Your task to perform on an android device: Look up the best rated 3d printer on Ali Express Image 0: 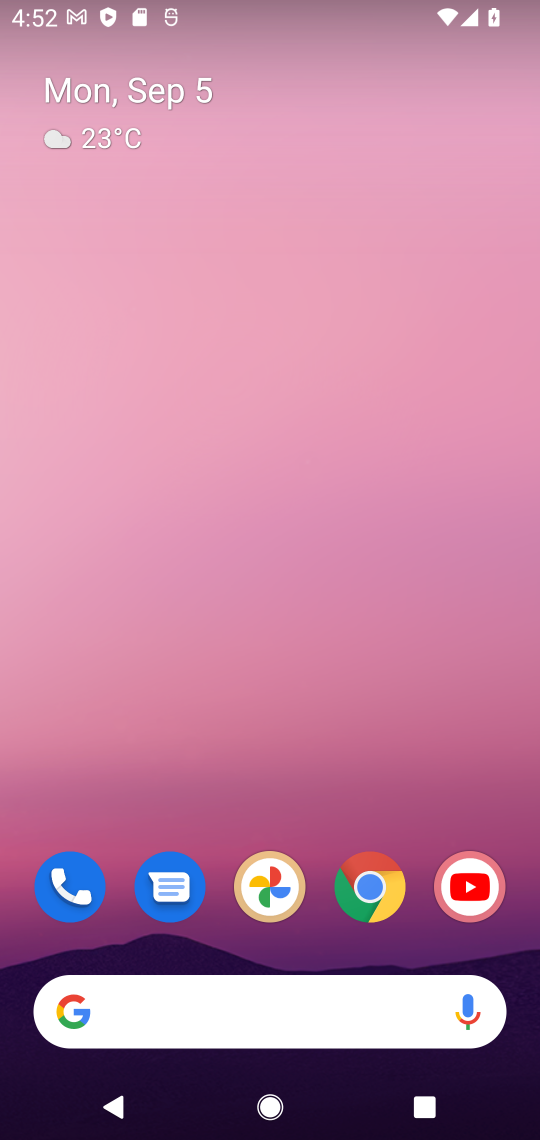
Step 0: drag from (199, 473) to (208, 299)
Your task to perform on an android device: Look up the best rated 3d printer on Ali Express Image 1: 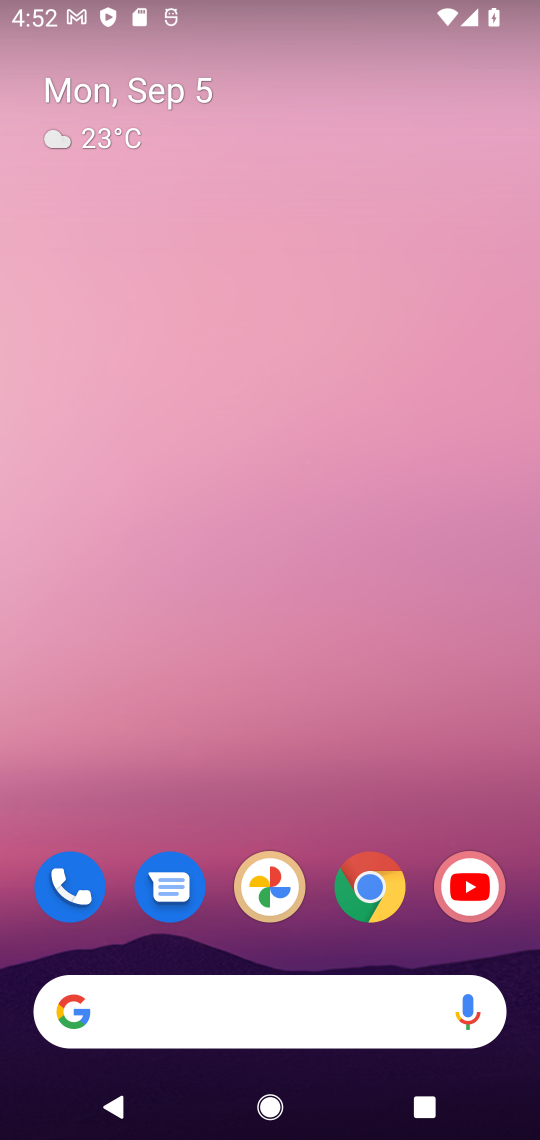
Step 1: drag from (300, 601) to (300, 154)
Your task to perform on an android device: Look up the best rated 3d printer on Ali Express Image 2: 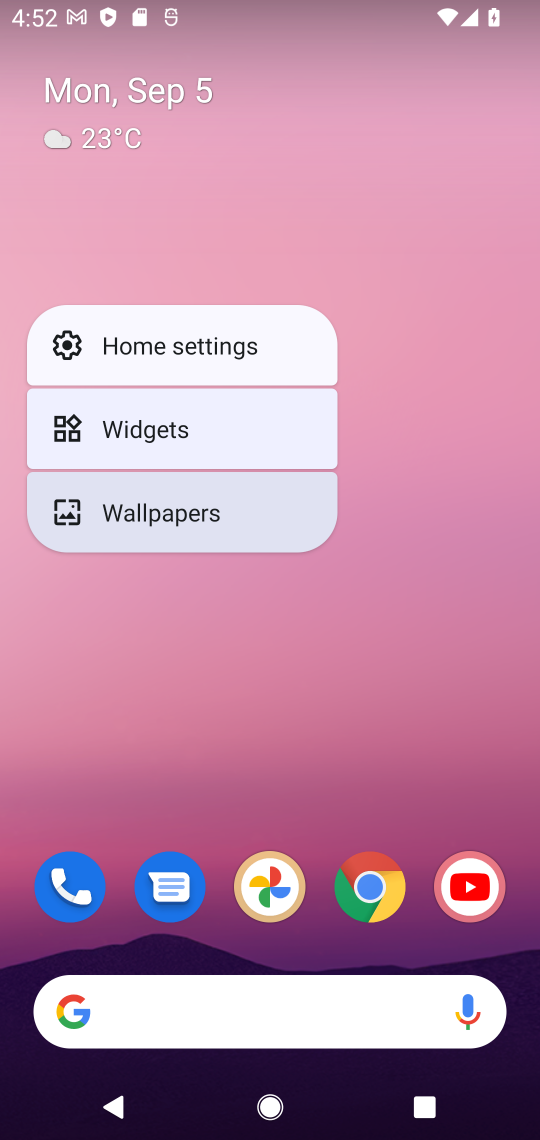
Step 2: drag from (346, 241) to (348, 133)
Your task to perform on an android device: Look up the best rated 3d printer on Ali Express Image 3: 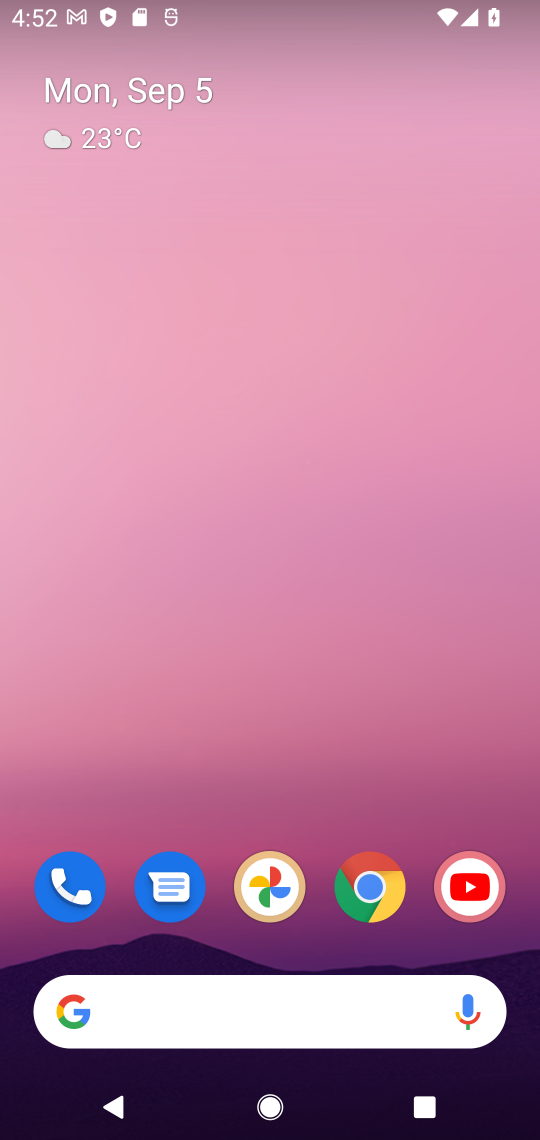
Step 3: drag from (249, 1010) to (297, 171)
Your task to perform on an android device: Look up the best rated 3d printer on Ali Express Image 4: 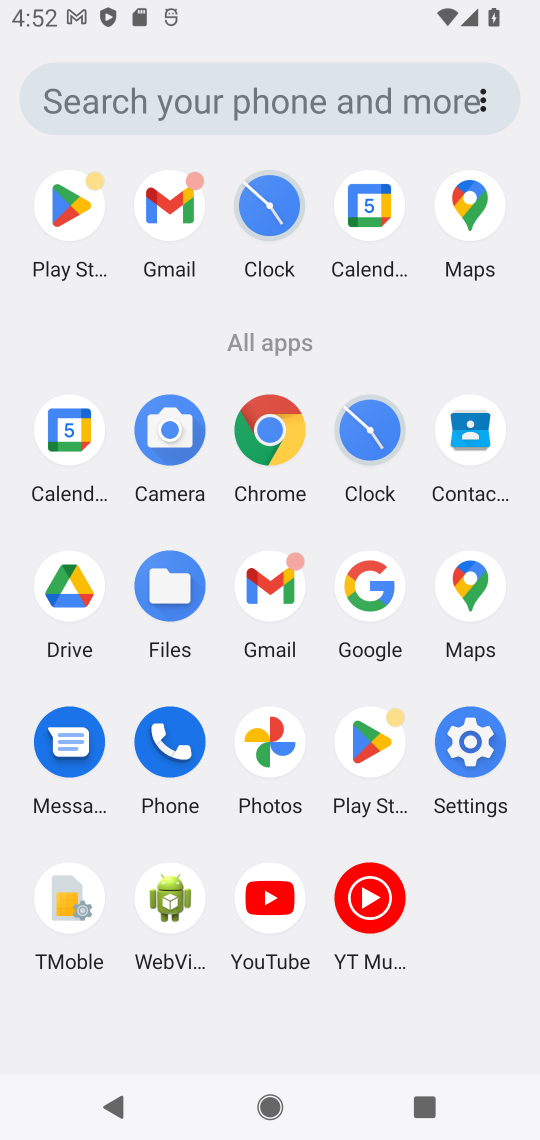
Step 4: click (374, 591)
Your task to perform on an android device: Look up the best rated 3d printer on Ali Express Image 5: 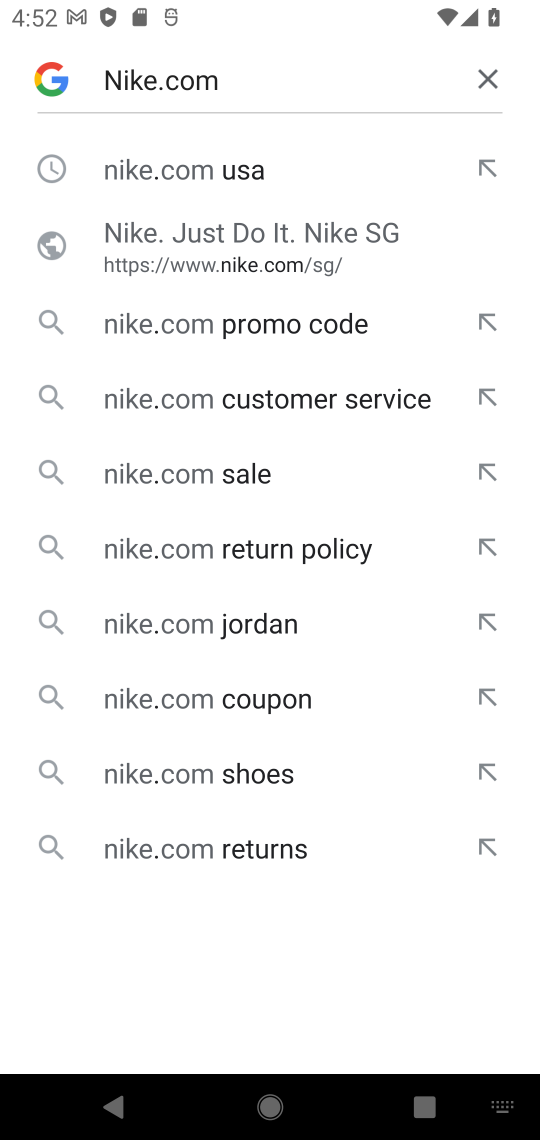
Step 5: click (495, 83)
Your task to perform on an android device: Look up the best rated 3d printer on Ali Express Image 6: 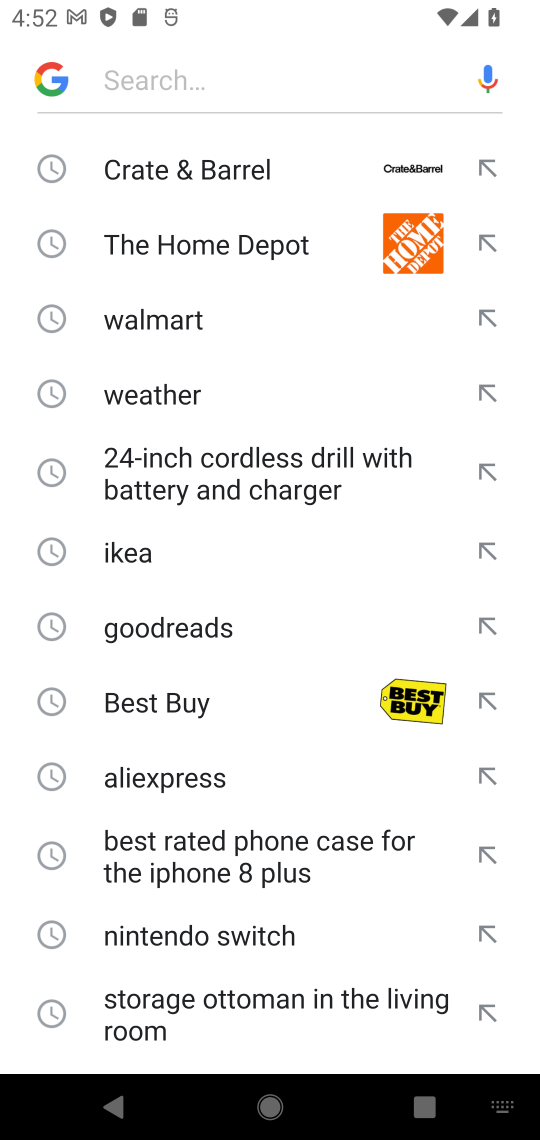
Step 6: type "Ali Express"
Your task to perform on an android device: Look up the best rated 3d printer on Ali Express Image 7: 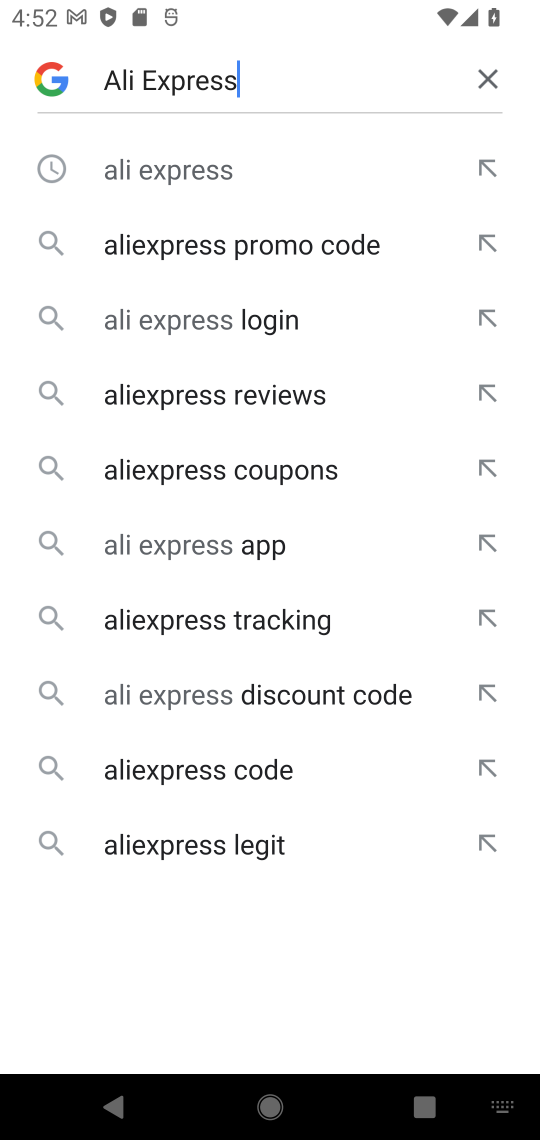
Step 7: click (159, 166)
Your task to perform on an android device: Look up the best rated 3d printer on Ali Express Image 8: 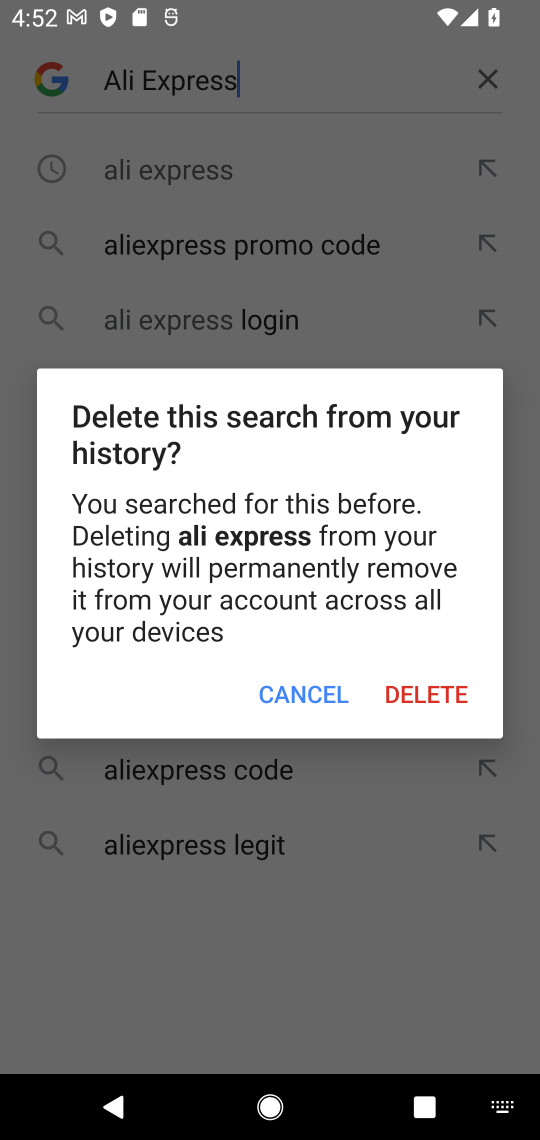
Step 8: click (296, 698)
Your task to perform on an android device: Look up the best rated 3d printer on Ali Express Image 9: 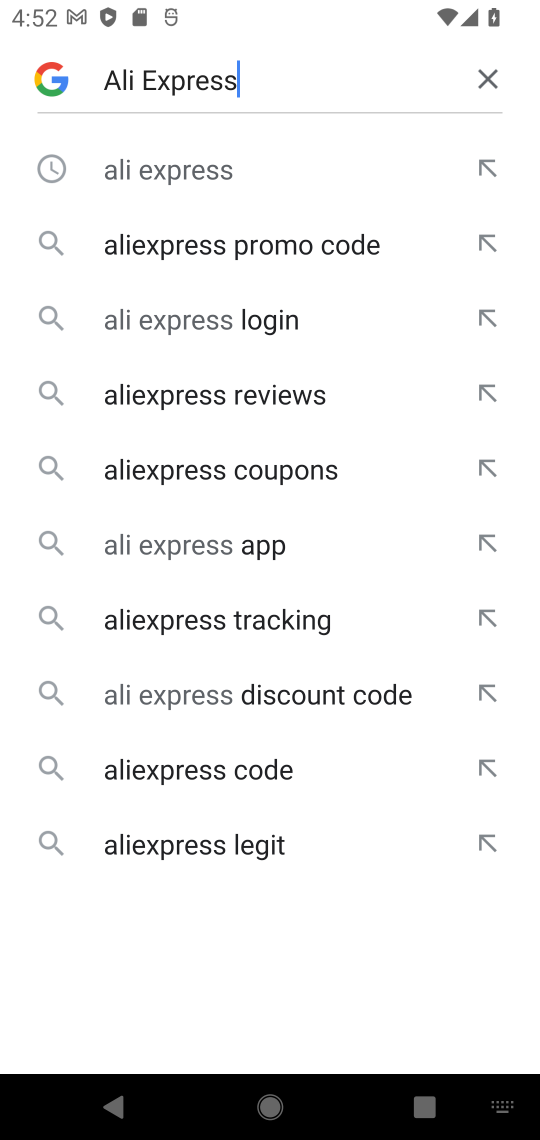
Step 9: click (211, 169)
Your task to perform on an android device: Look up the best rated 3d printer on Ali Express Image 10: 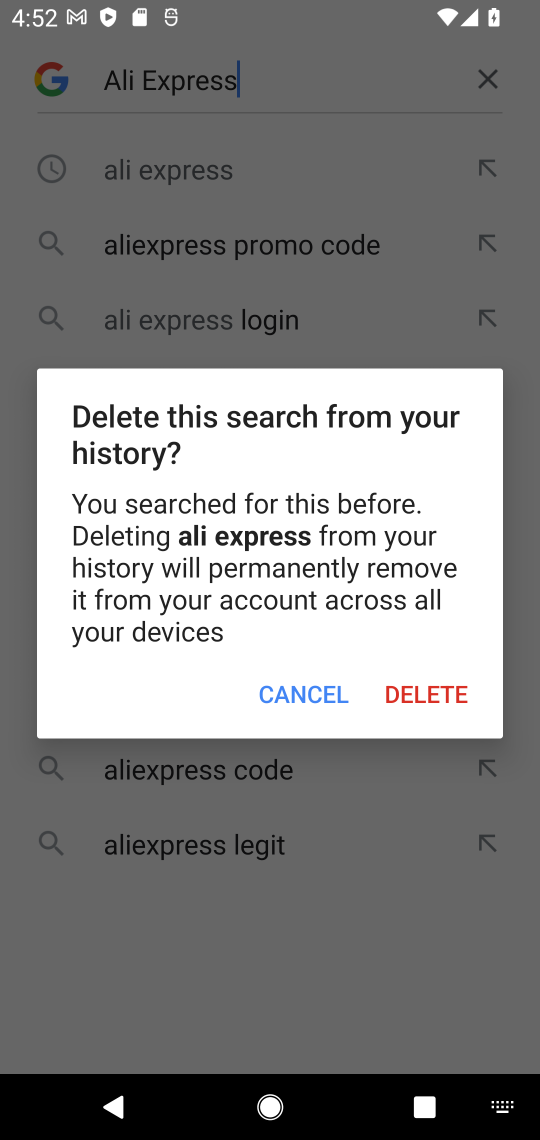
Step 10: click (293, 687)
Your task to perform on an android device: Look up the best rated 3d printer on Ali Express Image 11: 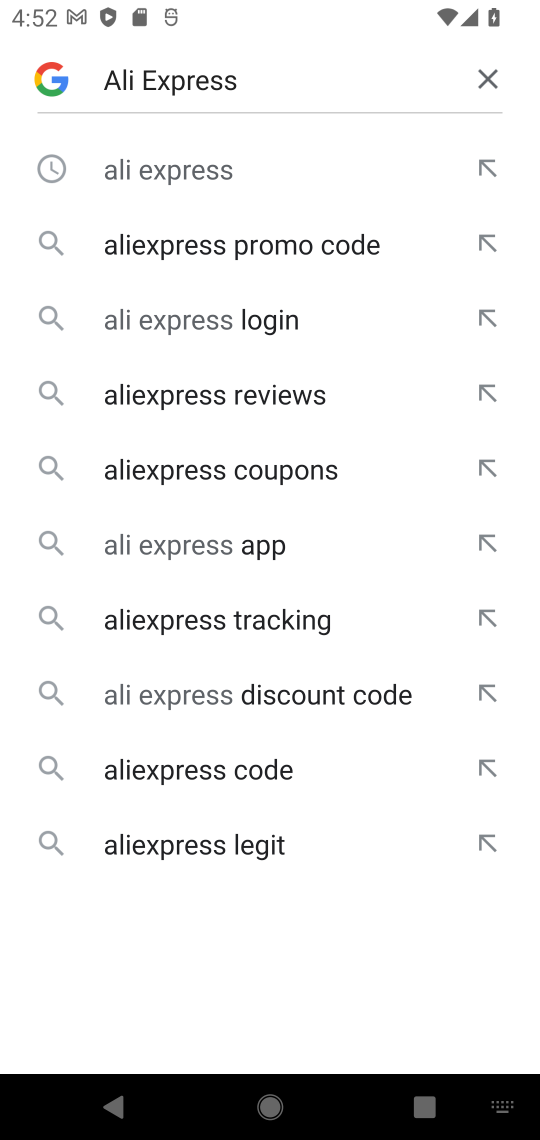
Step 11: click (179, 173)
Your task to perform on an android device: Look up the best rated 3d printer on Ali Express Image 12: 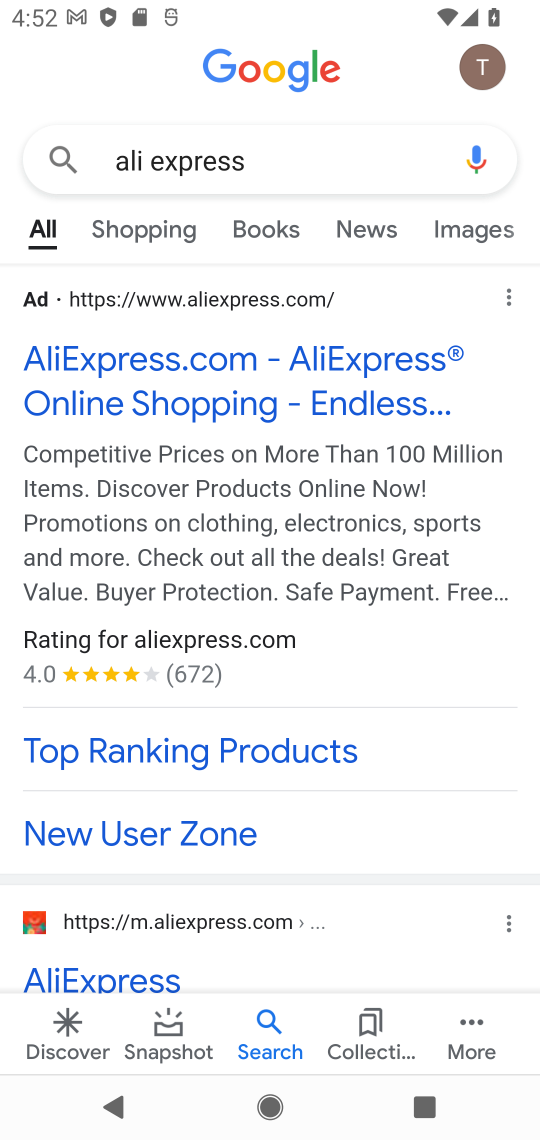
Step 12: click (137, 385)
Your task to perform on an android device: Look up the best rated 3d printer on Ali Express Image 13: 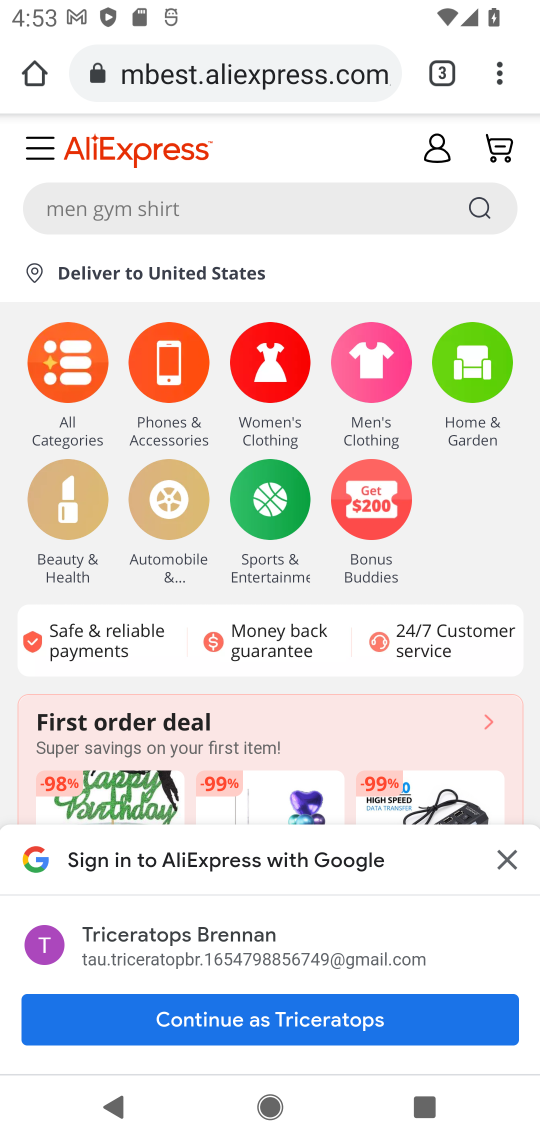
Step 13: click (178, 194)
Your task to perform on an android device: Look up the best rated 3d printer on Ali Express Image 14: 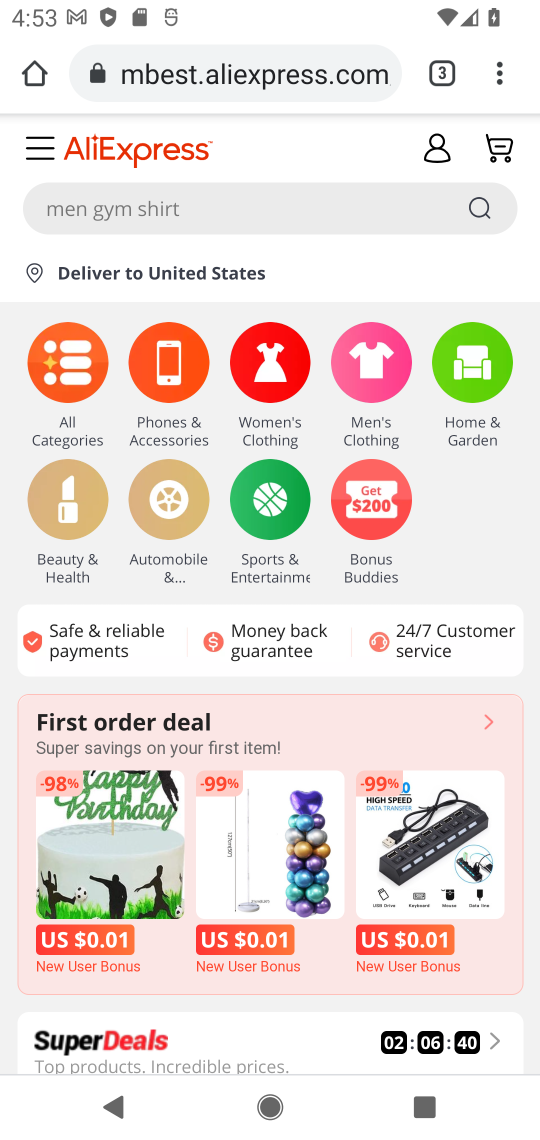
Step 14: click (477, 207)
Your task to perform on an android device: Look up the best rated 3d printer on Ali Express Image 15: 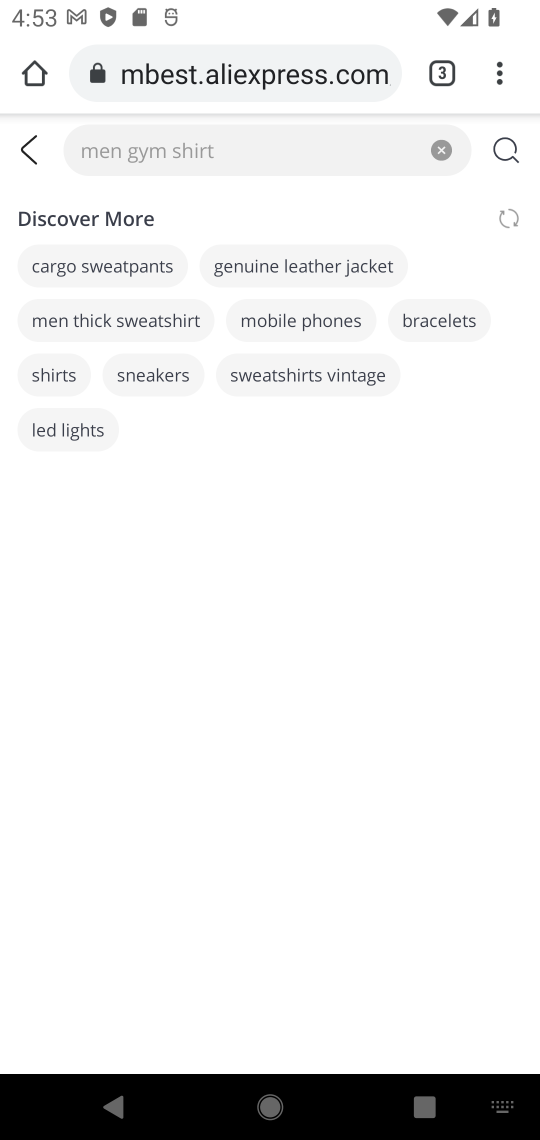
Step 15: type " best rated 3d printer"
Your task to perform on an android device: Look up the best rated 3d printer on Ali Express Image 16: 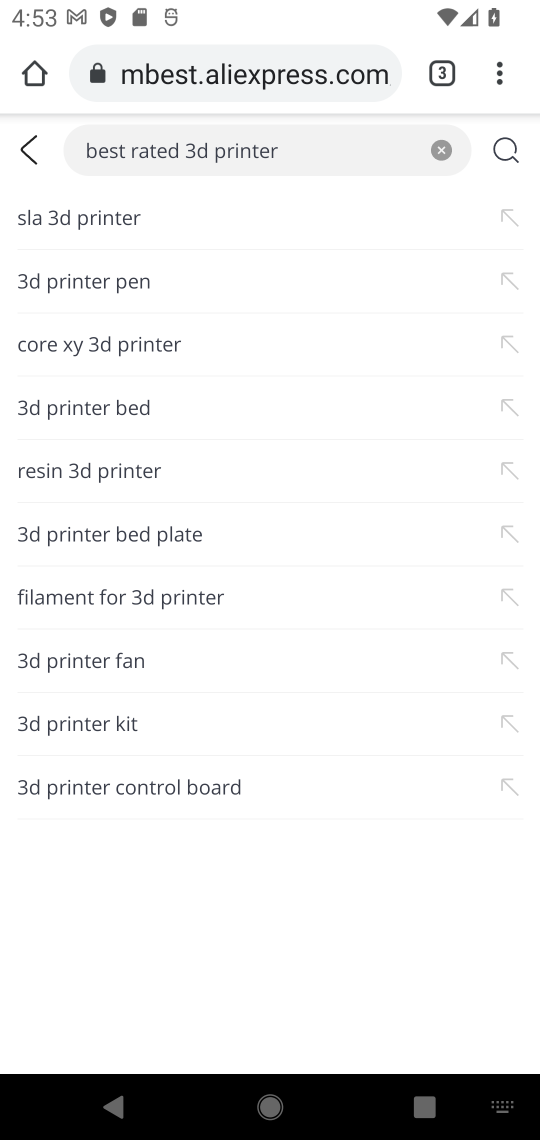
Step 16: click (69, 207)
Your task to perform on an android device: Look up the best rated 3d printer on Ali Express Image 17: 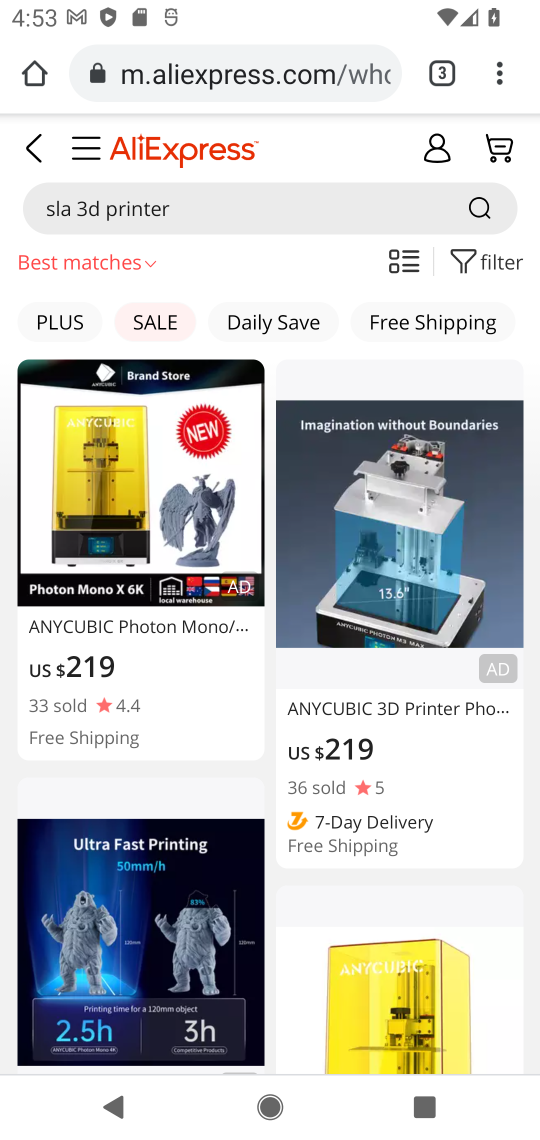
Step 17: task complete